Your task to perform on an android device: turn on translation in the chrome app Image 0: 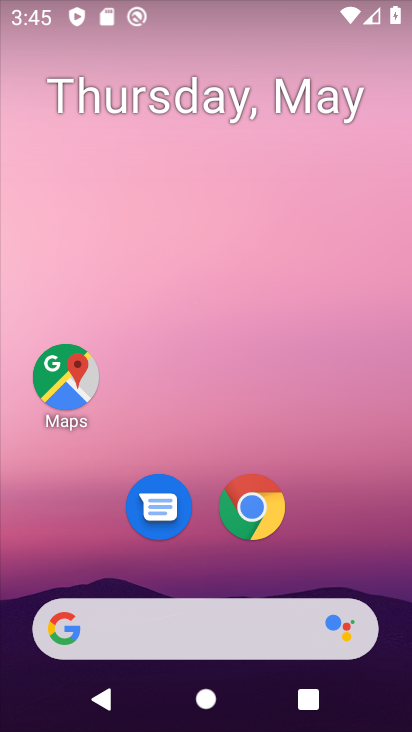
Step 0: click (251, 503)
Your task to perform on an android device: turn on translation in the chrome app Image 1: 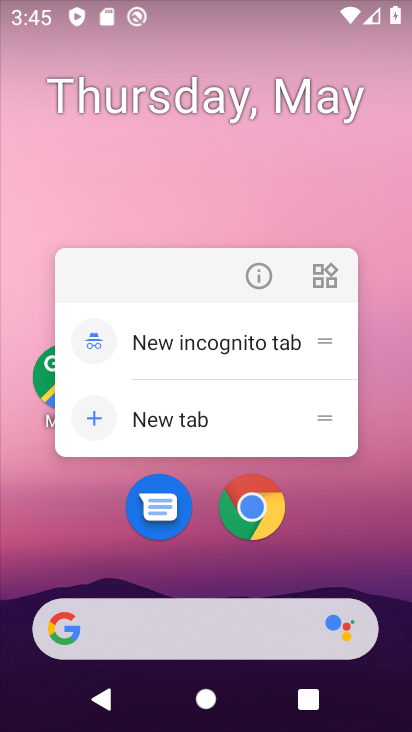
Step 1: click (251, 503)
Your task to perform on an android device: turn on translation in the chrome app Image 2: 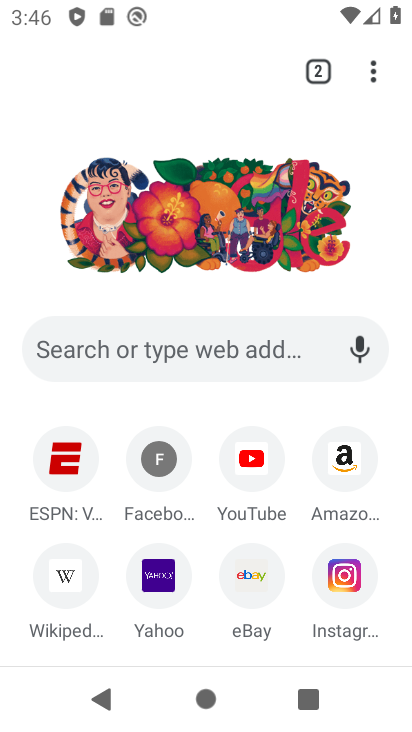
Step 2: click (370, 66)
Your task to perform on an android device: turn on translation in the chrome app Image 3: 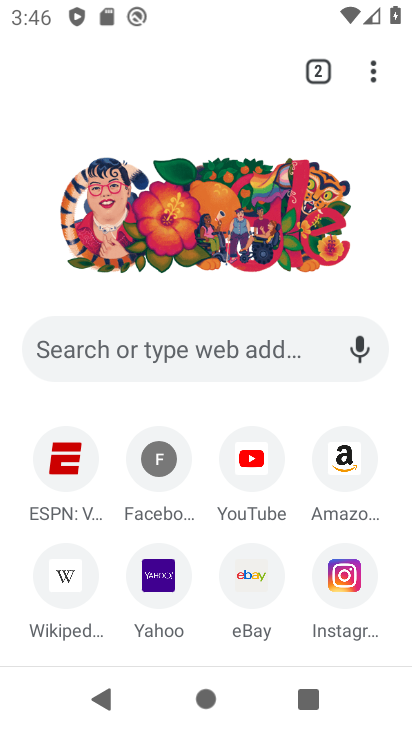
Step 3: click (370, 66)
Your task to perform on an android device: turn on translation in the chrome app Image 4: 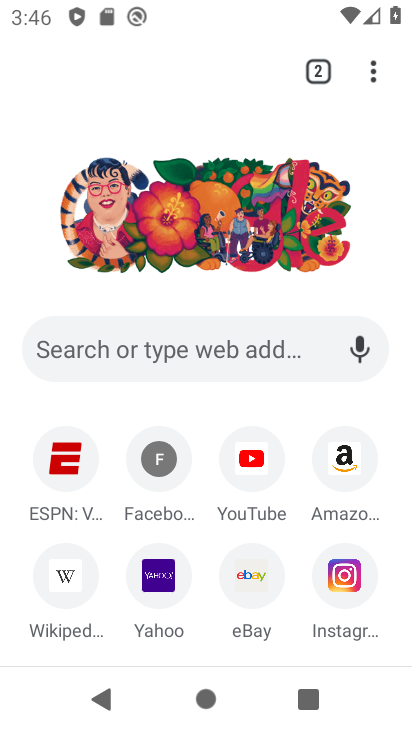
Step 4: click (368, 49)
Your task to perform on an android device: turn on translation in the chrome app Image 5: 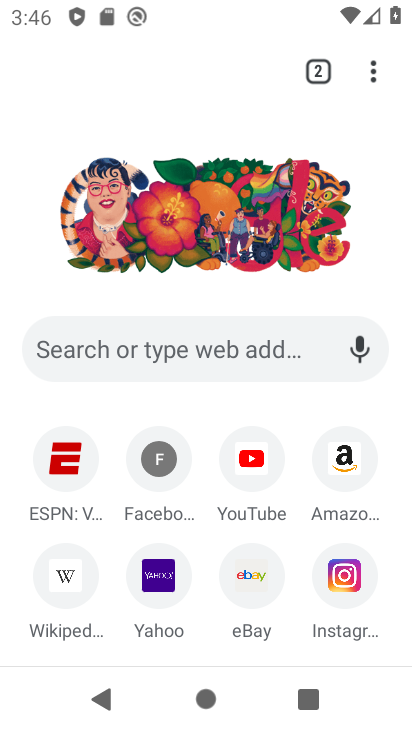
Step 5: click (368, 58)
Your task to perform on an android device: turn on translation in the chrome app Image 6: 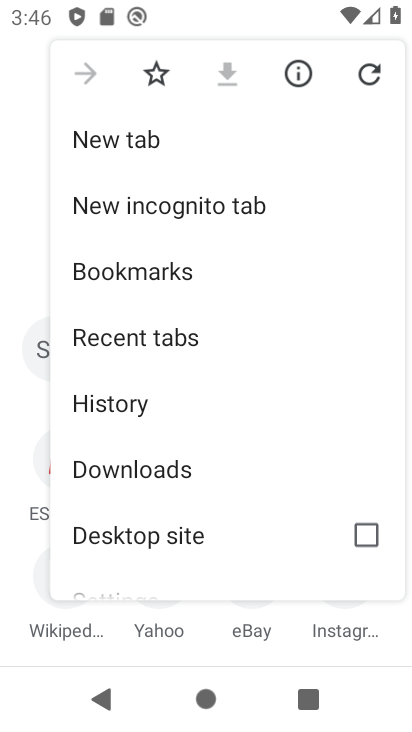
Step 6: drag from (223, 510) to (216, 142)
Your task to perform on an android device: turn on translation in the chrome app Image 7: 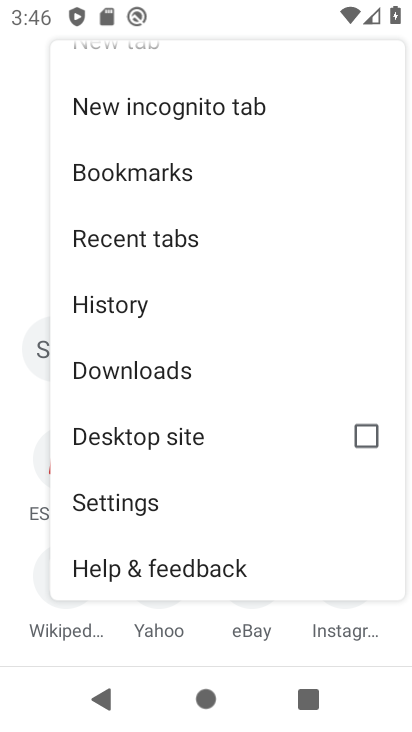
Step 7: click (107, 517)
Your task to perform on an android device: turn on translation in the chrome app Image 8: 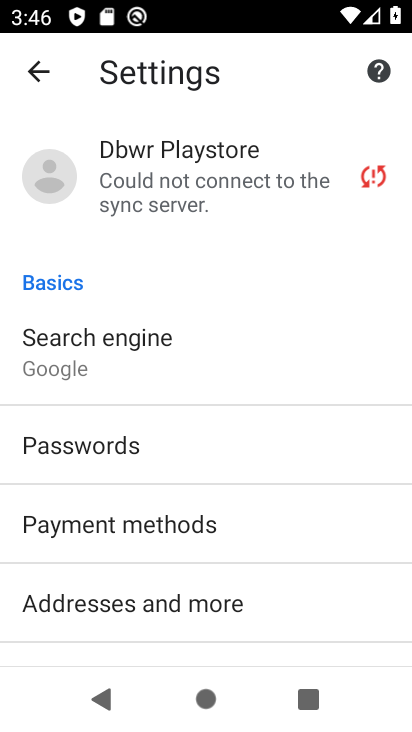
Step 8: drag from (170, 605) to (234, 331)
Your task to perform on an android device: turn on translation in the chrome app Image 9: 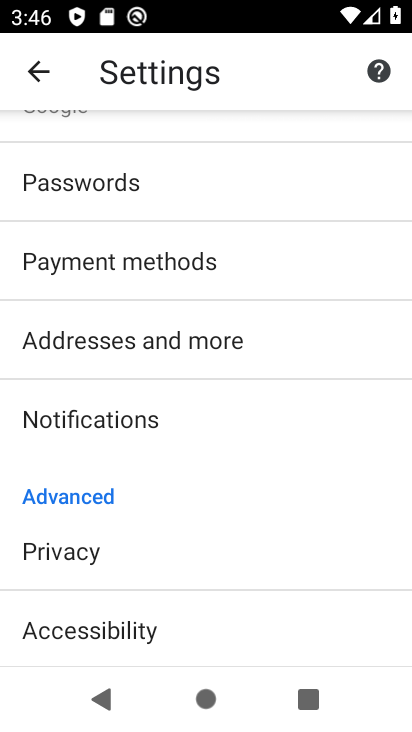
Step 9: drag from (175, 619) to (183, 292)
Your task to perform on an android device: turn on translation in the chrome app Image 10: 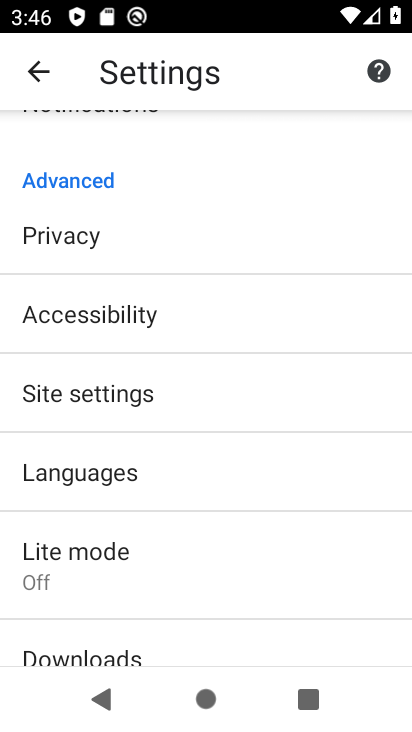
Step 10: click (119, 488)
Your task to perform on an android device: turn on translation in the chrome app Image 11: 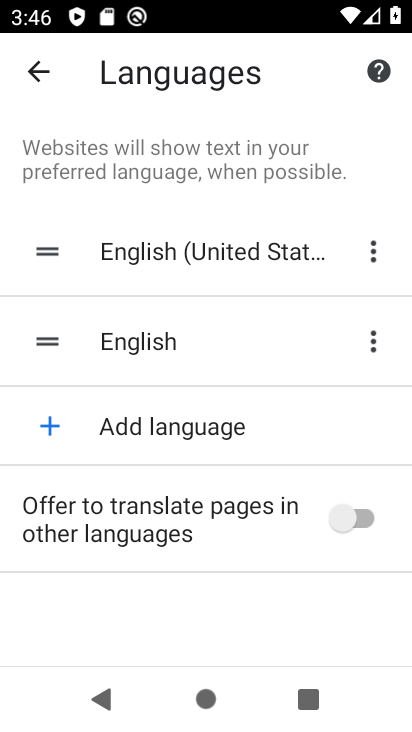
Step 11: click (364, 520)
Your task to perform on an android device: turn on translation in the chrome app Image 12: 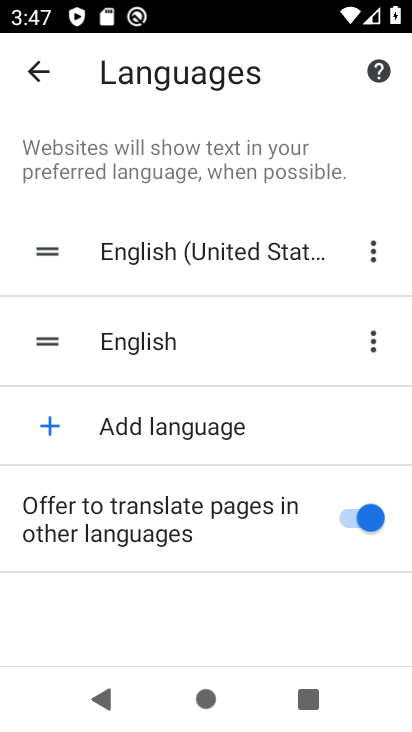
Step 12: task complete